Your task to perform on an android device: turn on wifi Image 0: 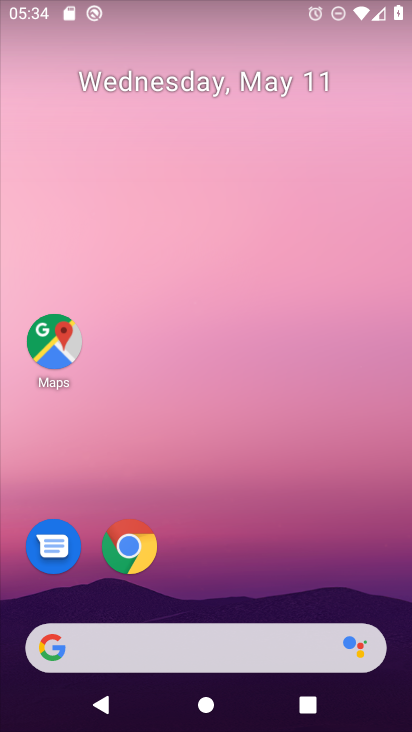
Step 0: drag from (171, 652) to (204, 75)
Your task to perform on an android device: turn on wifi Image 1: 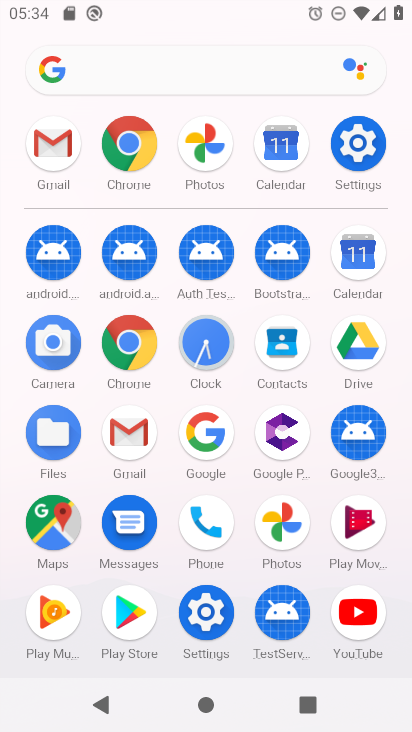
Step 1: click (345, 140)
Your task to perform on an android device: turn on wifi Image 2: 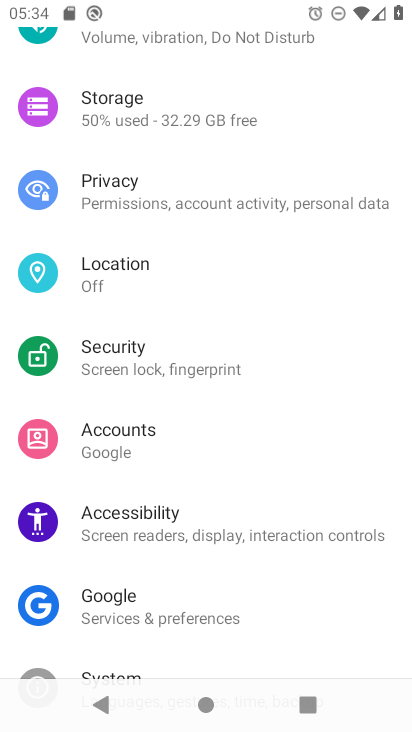
Step 2: drag from (356, 163) to (344, 721)
Your task to perform on an android device: turn on wifi Image 3: 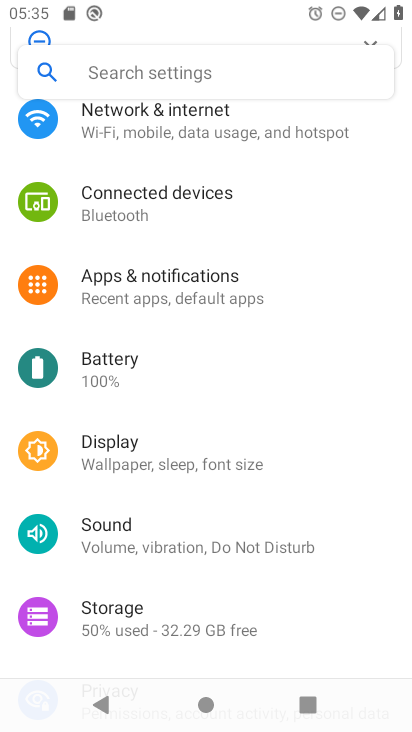
Step 3: click (198, 115)
Your task to perform on an android device: turn on wifi Image 4: 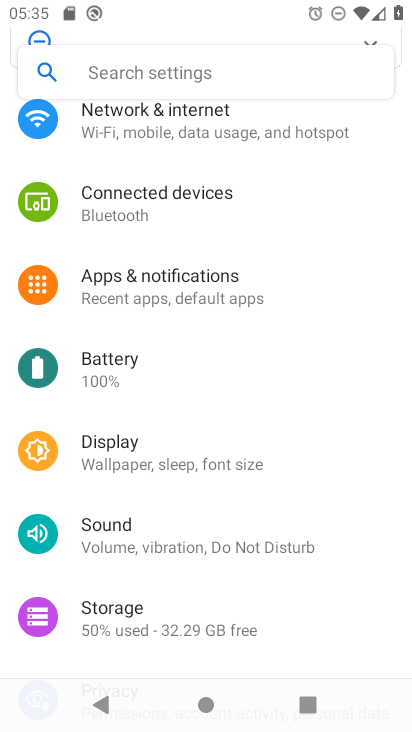
Step 4: click (219, 137)
Your task to perform on an android device: turn on wifi Image 5: 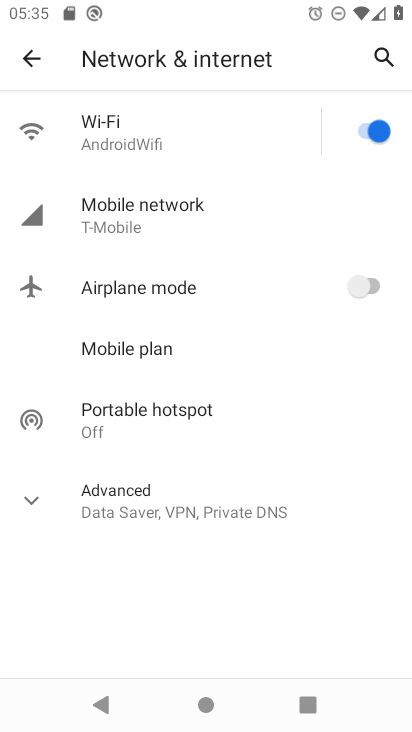
Step 5: task complete